Your task to perform on an android device: set an alarm Image 0: 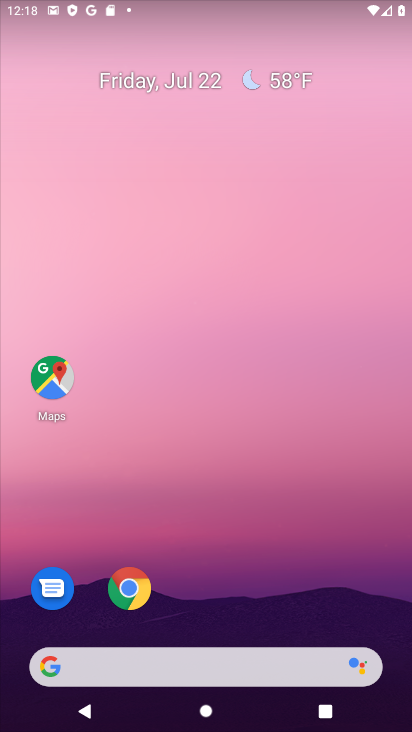
Step 0: drag from (233, 605) to (266, 88)
Your task to perform on an android device: set an alarm Image 1: 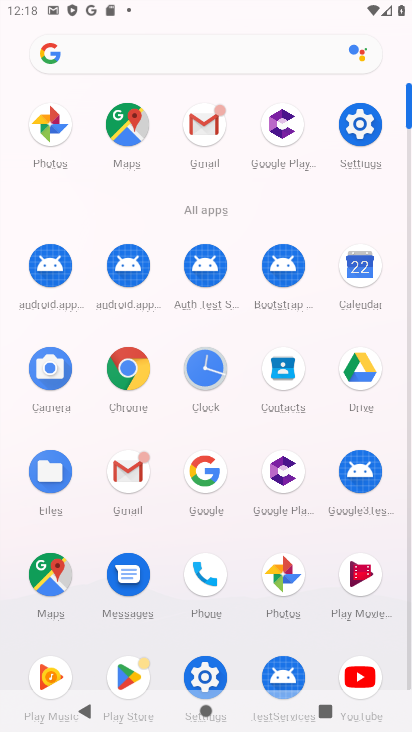
Step 1: click (208, 377)
Your task to perform on an android device: set an alarm Image 2: 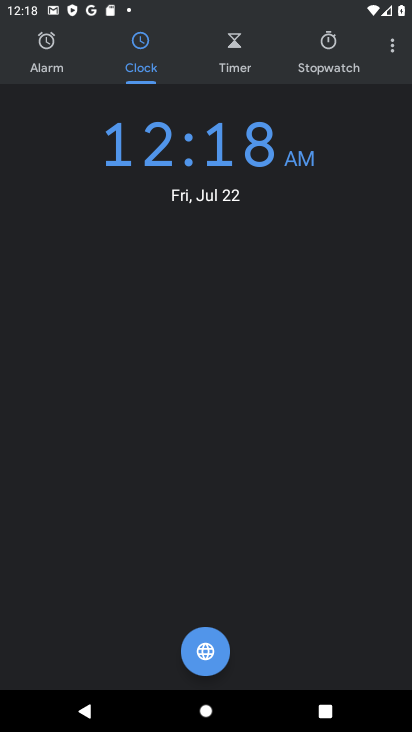
Step 2: click (49, 68)
Your task to perform on an android device: set an alarm Image 3: 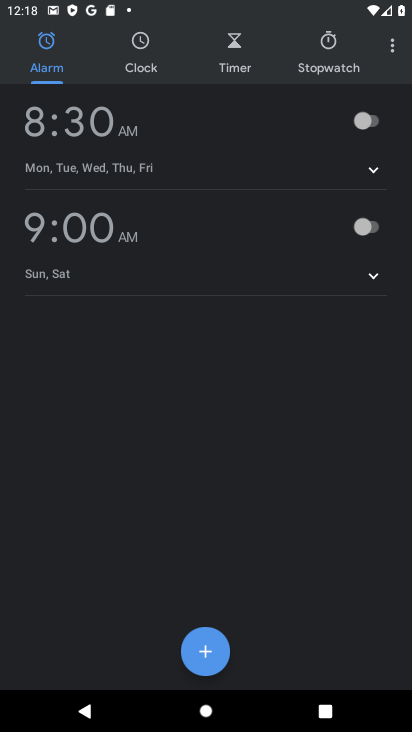
Step 3: click (221, 645)
Your task to perform on an android device: set an alarm Image 4: 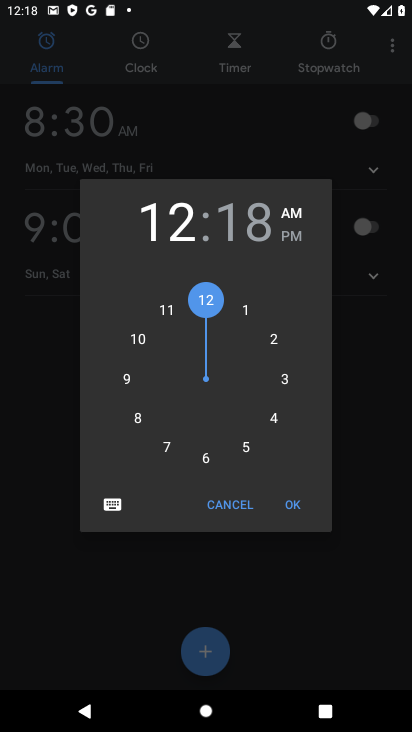
Step 4: click (295, 504)
Your task to perform on an android device: set an alarm Image 5: 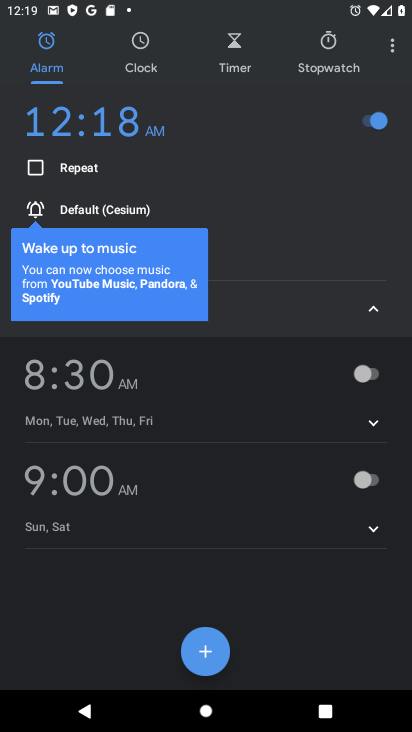
Step 5: click (365, 320)
Your task to perform on an android device: set an alarm Image 6: 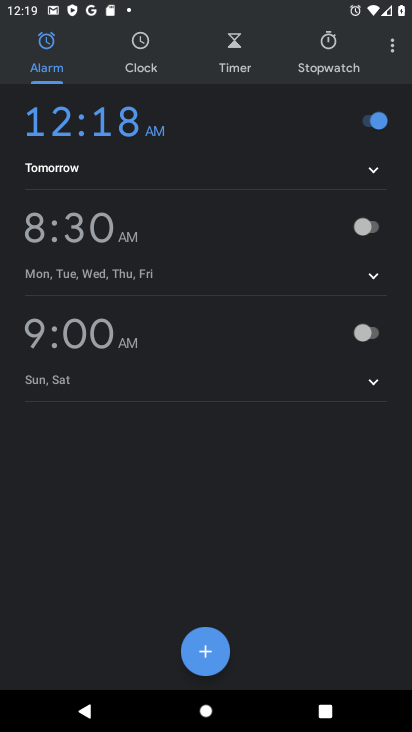
Step 6: task complete